Your task to perform on an android device: change timer sound Image 0: 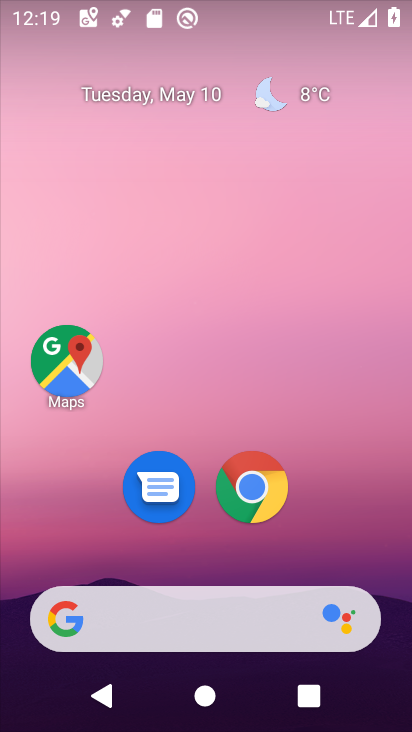
Step 0: drag from (205, 538) to (221, 47)
Your task to perform on an android device: change timer sound Image 1: 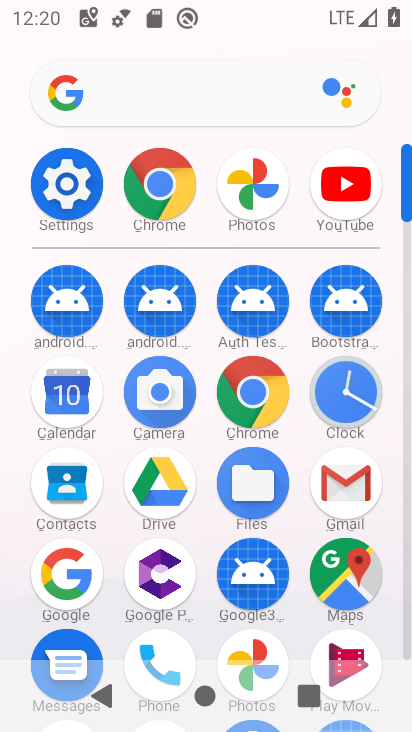
Step 1: click (343, 383)
Your task to perform on an android device: change timer sound Image 2: 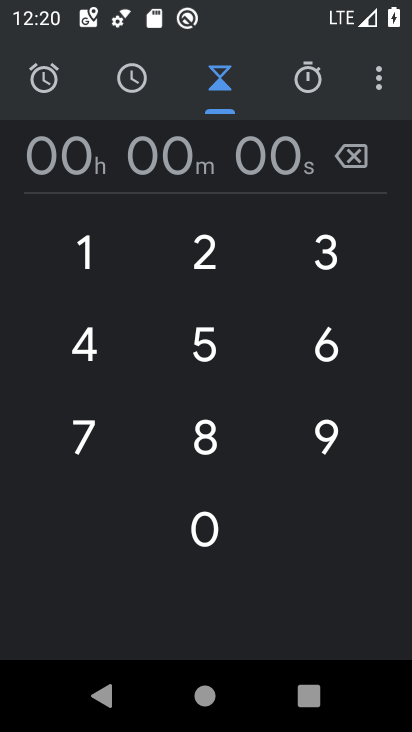
Step 2: click (377, 74)
Your task to perform on an android device: change timer sound Image 3: 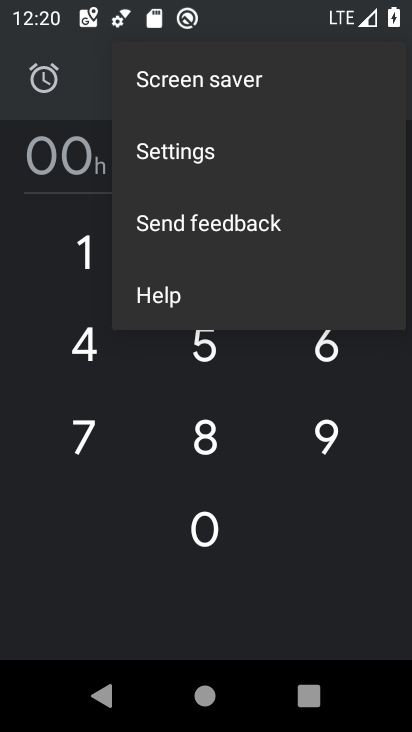
Step 3: click (236, 150)
Your task to perform on an android device: change timer sound Image 4: 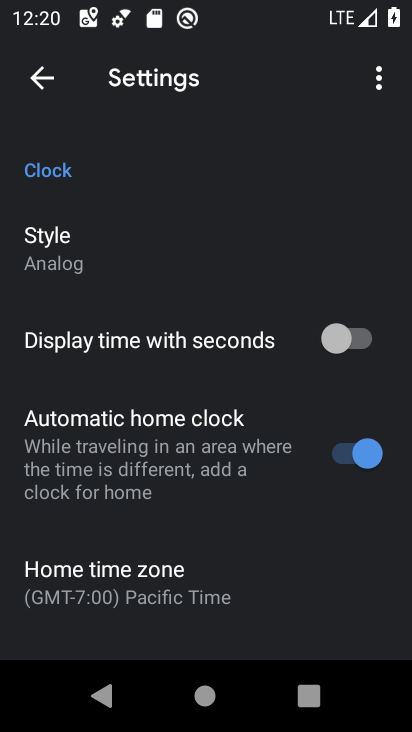
Step 4: drag from (293, 528) to (316, 86)
Your task to perform on an android device: change timer sound Image 5: 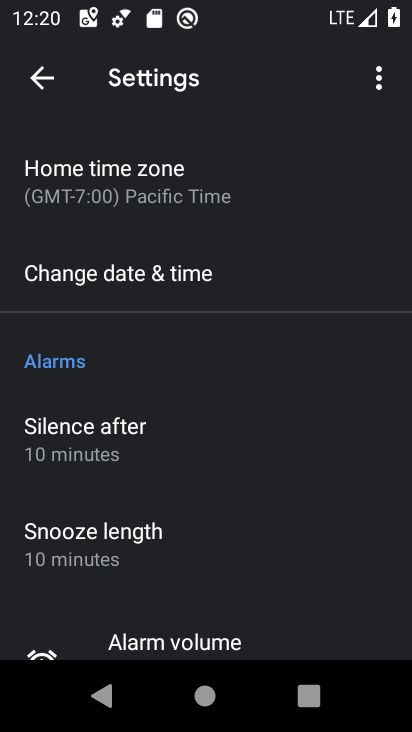
Step 5: drag from (199, 574) to (244, 65)
Your task to perform on an android device: change timer sound Image 6: 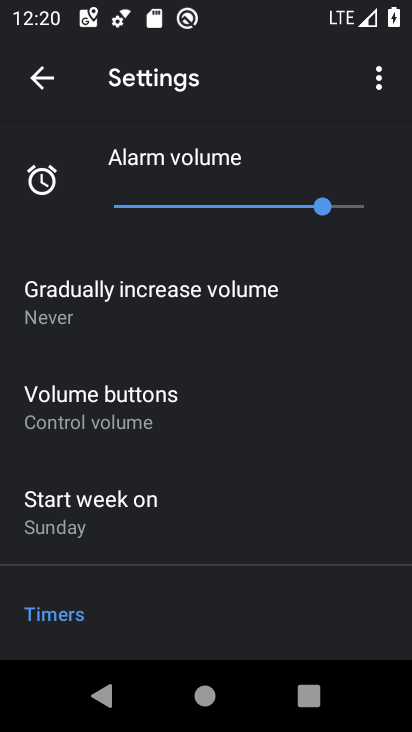
Step 6: drag from (192, 565) to (262, 96)
Your task to perform on an android device: change timer sound Image 7: 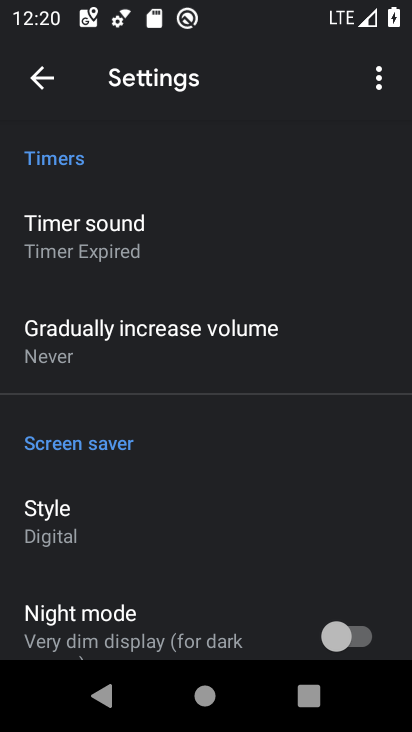
Step 7: click (160, 241)
Your task to perform on an android device: change timer sound Image 8: 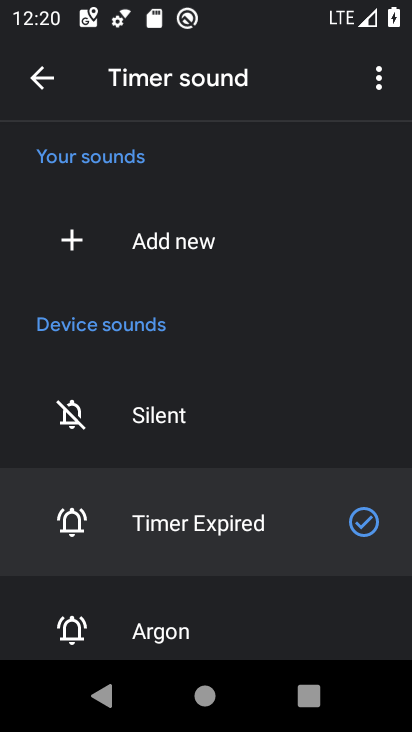
Step 8: click (203, 621)
Your task to perform on an android device: change timer sound Image 9: 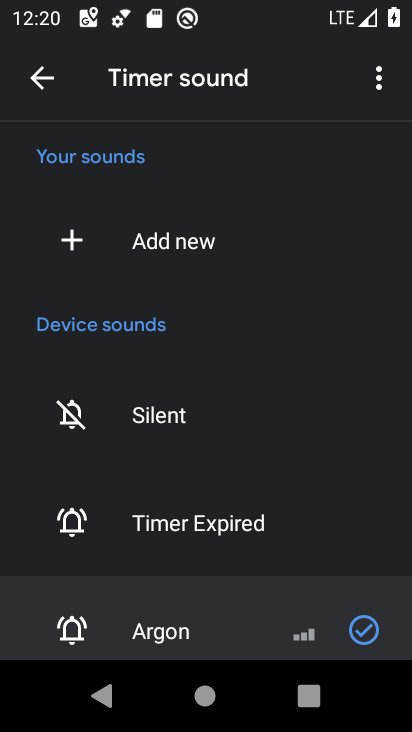
Step 9: task complete